Your task to perform on an android device: When is my next meeting? Image 0: 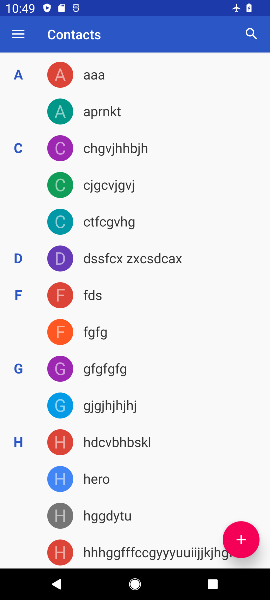
Step 0: press back button
Your task to perform on an android device: When is my next meeting? Image 1: 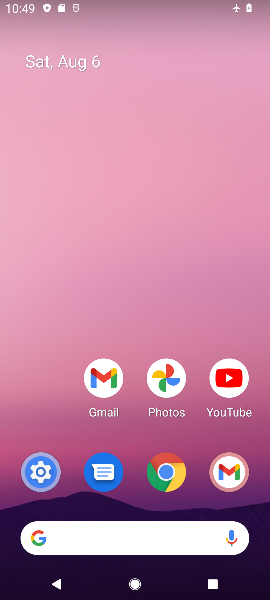
Step 1: drag from (162, 457) to (93, 23)
Your task to perform on an android device: When is my next meeting? Image 2: 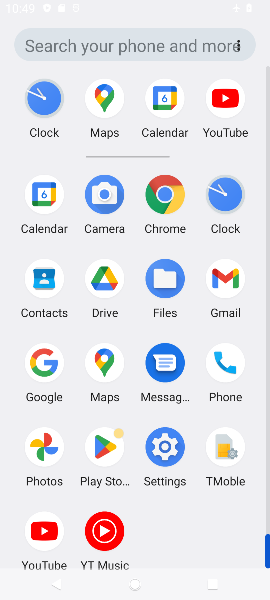
Step 2: drag from (140, 351) to (151, 113)
Your task to perform on an android device: When is my next meeting? Image 3: 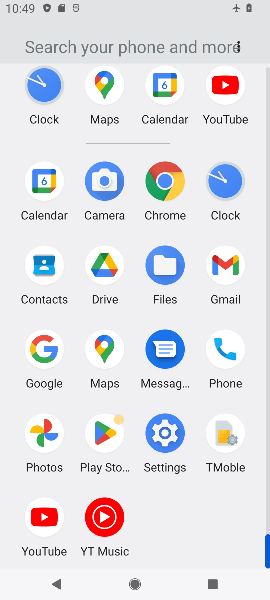
Step 3: click (39, 188)
Your task to perform on an android device: When is my next meeting? Image 4: 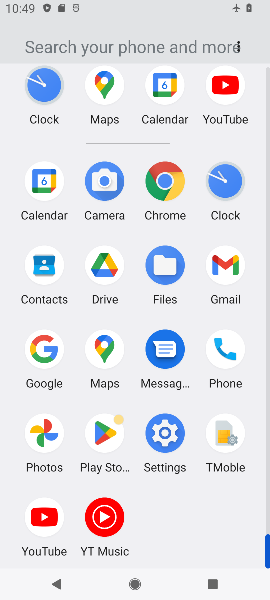
Step 4: click (39, 186)
Your task to perform on an android device: When is my next meeting? Image 5: 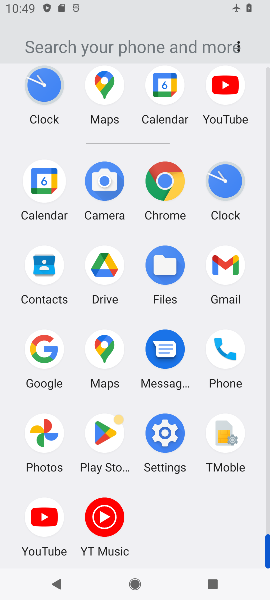
Step 5: click (40, 189)
Your task to perform on an android device: When is my next meeting? Image 6: 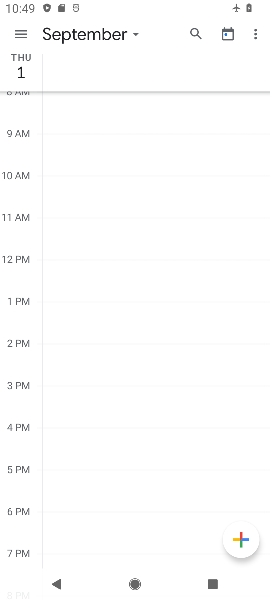
Step 6: click (132, 27)
Your task to perform on an android device: When is my next meeting? Image 7: 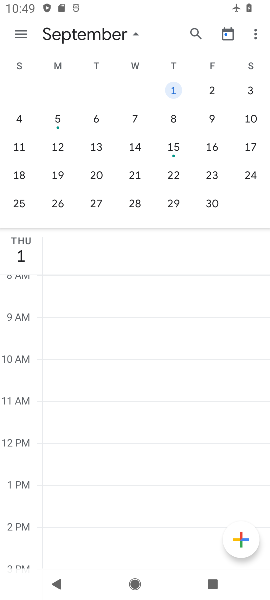
Step 7: drag from (30, 142) to (258, 162)
Your task to perform on an android device: When is my next meeting? Image 8: 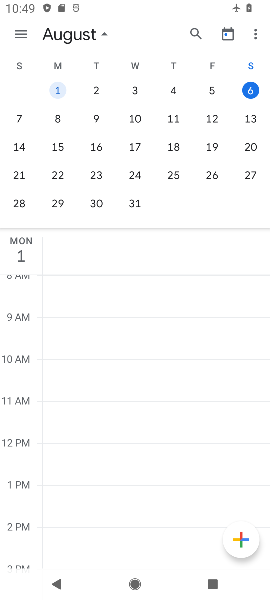
Step 8: drag from (161, 364) to (147, 138)
Your task to perform on an android device: When is my next meeting? Image 9: 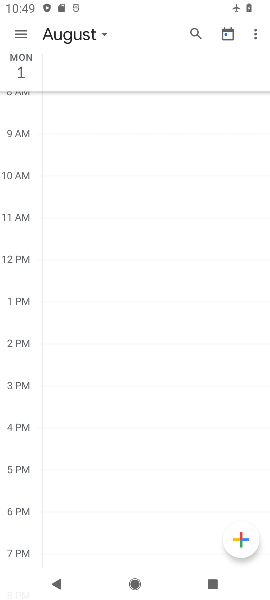
Step 9: drag from (154, 457) to (121, 0)
Your task to perform on an android device: When is my next meeting? Image 10: 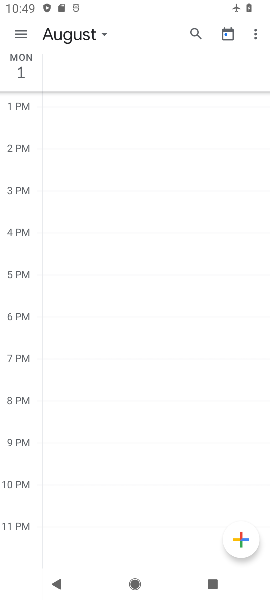
Step 10: drag from (149, 365) to (146, 128)
Your task to perform on an android device: When is my next meeting? Image 11: 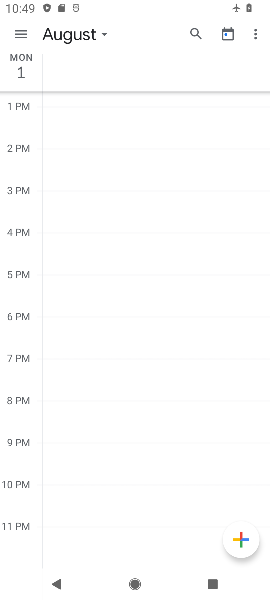
Step 11: drag from (148, 154) to (195, 489)
Your task to perform on an android device: When is my next meeting? Image 12: 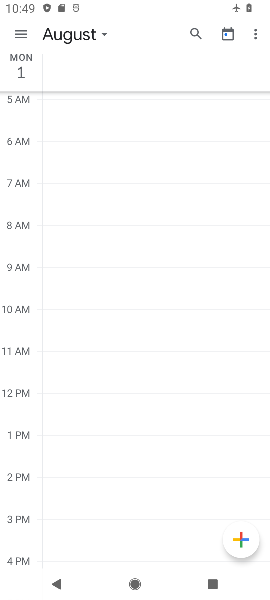
Step 12: drag from (108, 217) to (144, 458)
Your task to perform on an android device: When is my next meeting? Image 13: 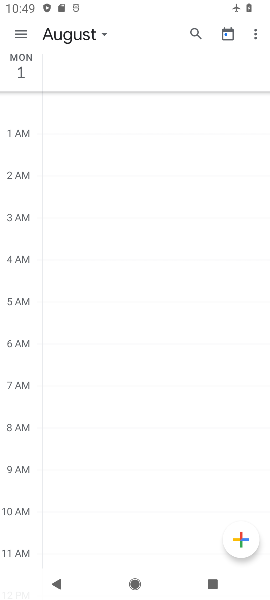
Step 13: drag from (98, 255) to (140, 476)
Your task to perform on an android device: When is my next meeting? Image 14: 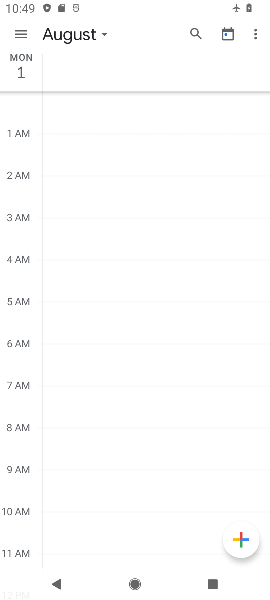
Step 14: drag from (102, 174) to (139, 438)
Your task to perform on an android device: When is my next meeting? Image 15: 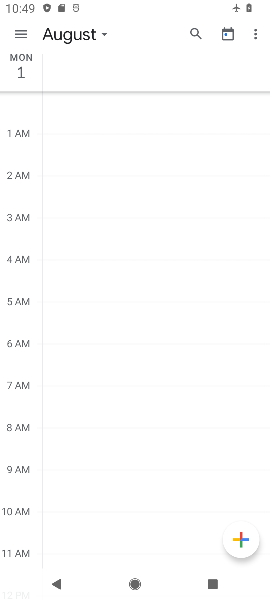
Step 15: drag from (93, 131) to (127, 391)
Your task to perform on an android device: When is my next meeting? Image 16: 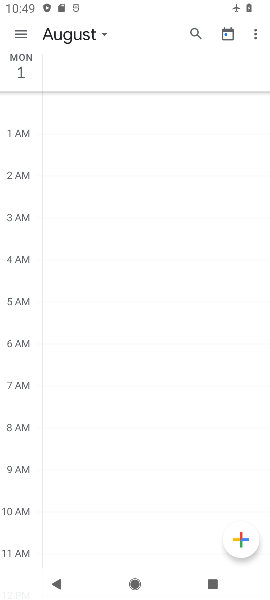
Step 16: click (97, 39)
Your task to perform on an android device: When is my next meeting? Image 17: 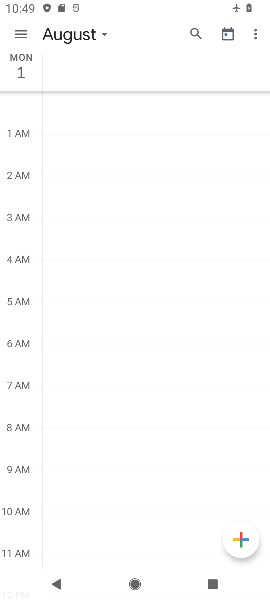
Step 17: task complete